Your task to perform on an android device: Check the news Image 0: 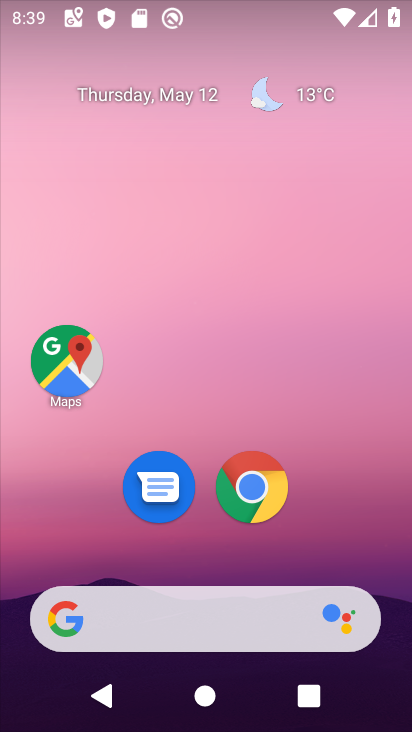
Step 0: click (117, 634)
Your task to perform on an android device: Check the news Image 1: 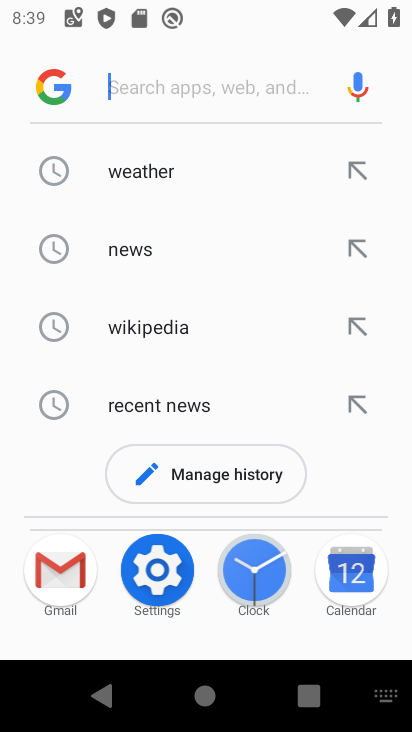
Step 1: click (130, 260)
Your task to perform on an android device: Check the news Image 2: 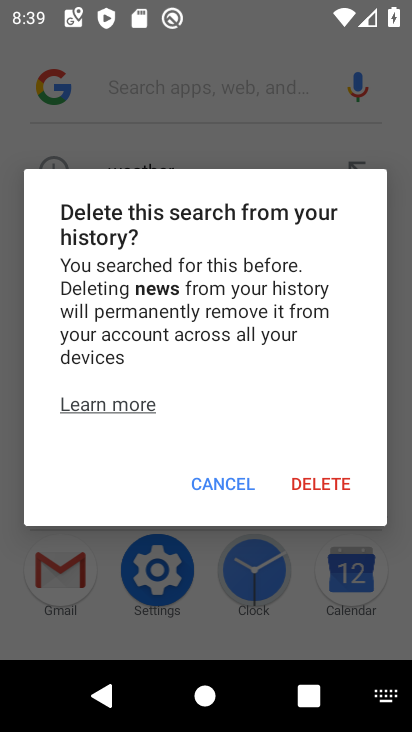
Step 2: click (214, 483)
Your task to perform on an android device: Check the news Image 3: 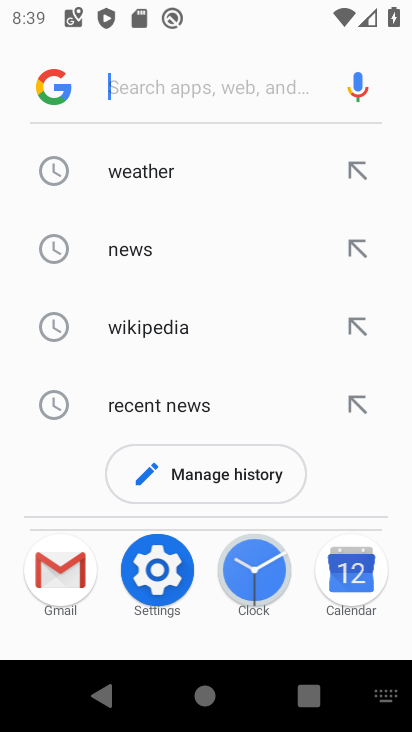
Step 3: click (125, 254)
Your task to perform on an android device: Check the news Image 4: 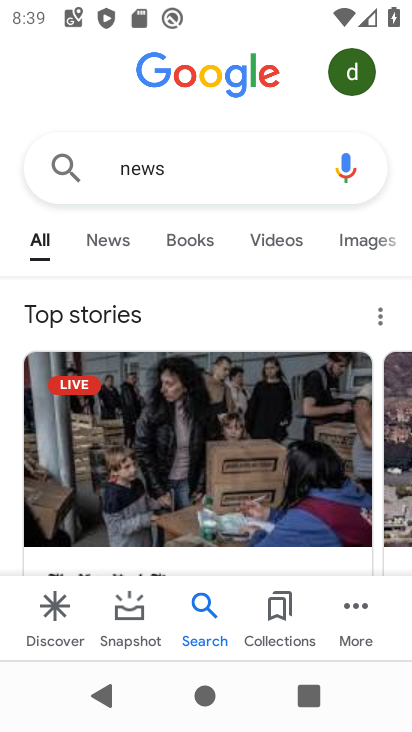
Step 4: drag from (137, 477) to (126, 366)
Your task to perform on an android device: Check the news Image 5: 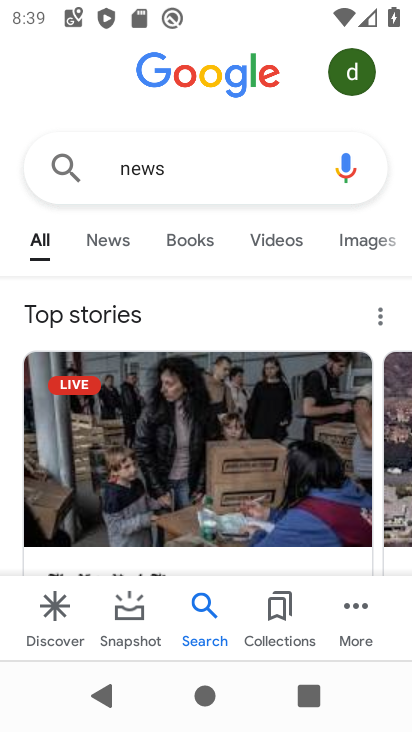
Step 5: click (103, 240)
Your task to perform on an android device: Check the news Image 6: 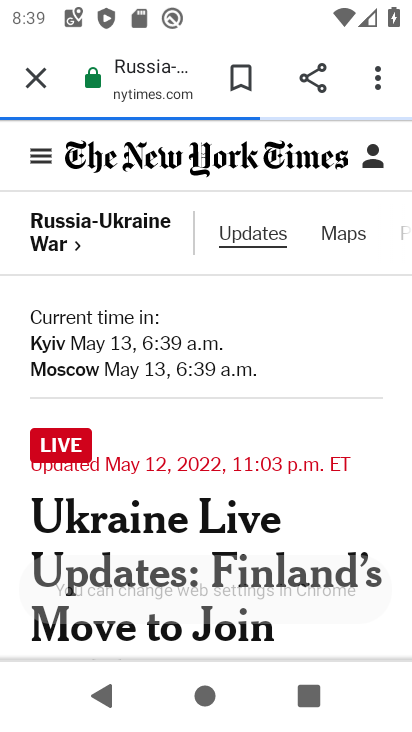
Step 6: task complete